Your task to perform on an android device: toggle improve location accuracy Image 0: 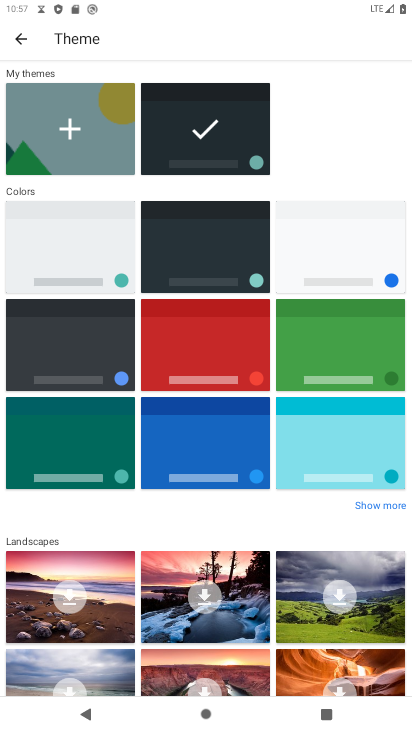
Step 0: task complete